Your task to perform on an android device: install app "Etsy: Buy & Sell Unique Items" Image 0: 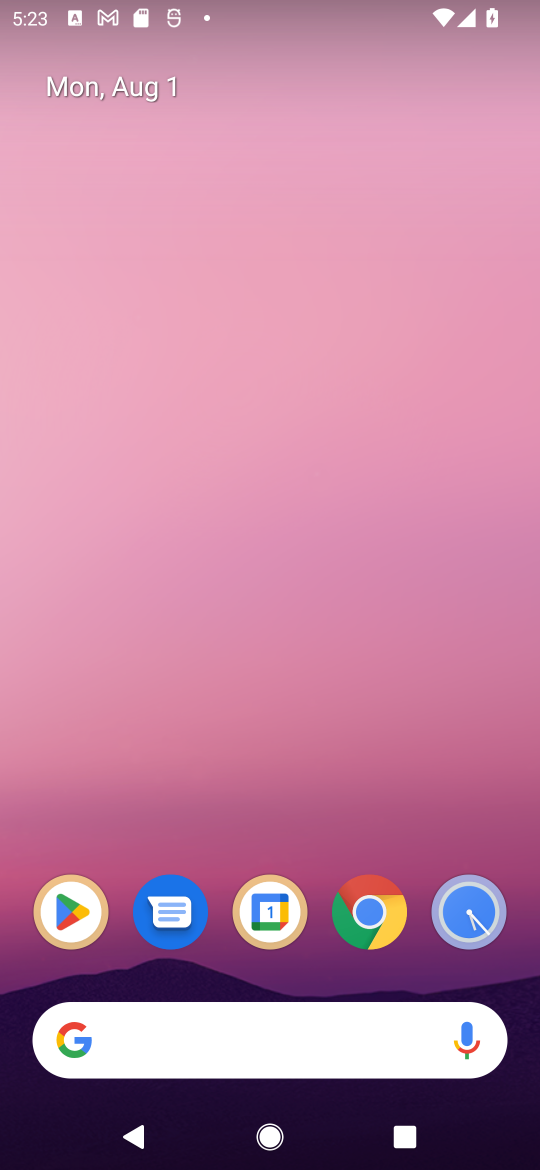
Step 0: click (81, 908)
Your task to perform on an android device: install app "Etsy: Buy & Sell Unique Items" Image 1: 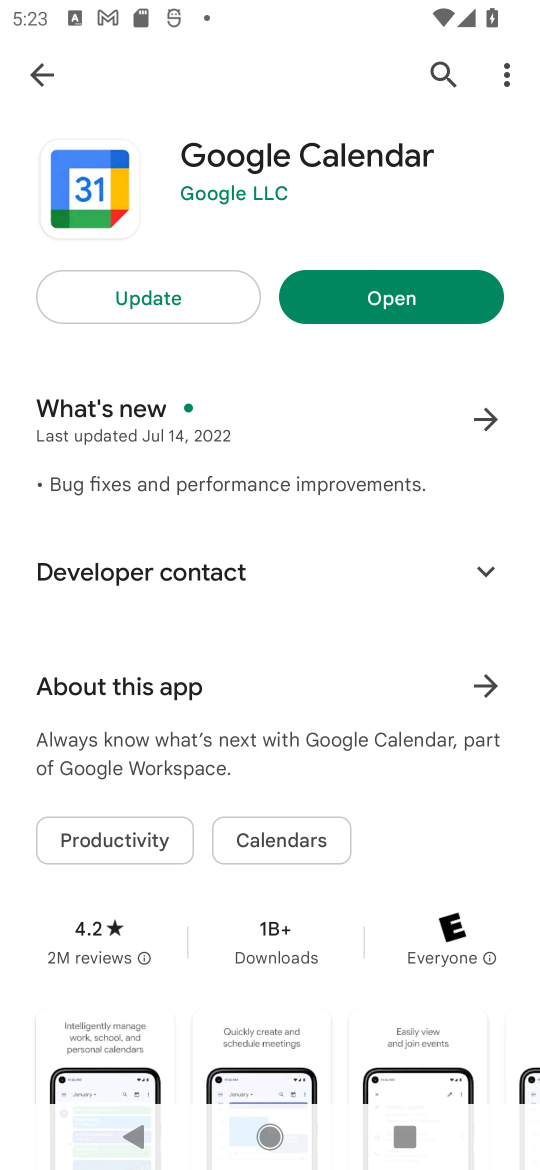
Step 1: click (450, 73)
Your task to perform on an android device: install app "Etsy: Buy & Sell Unique Items" Image 2: 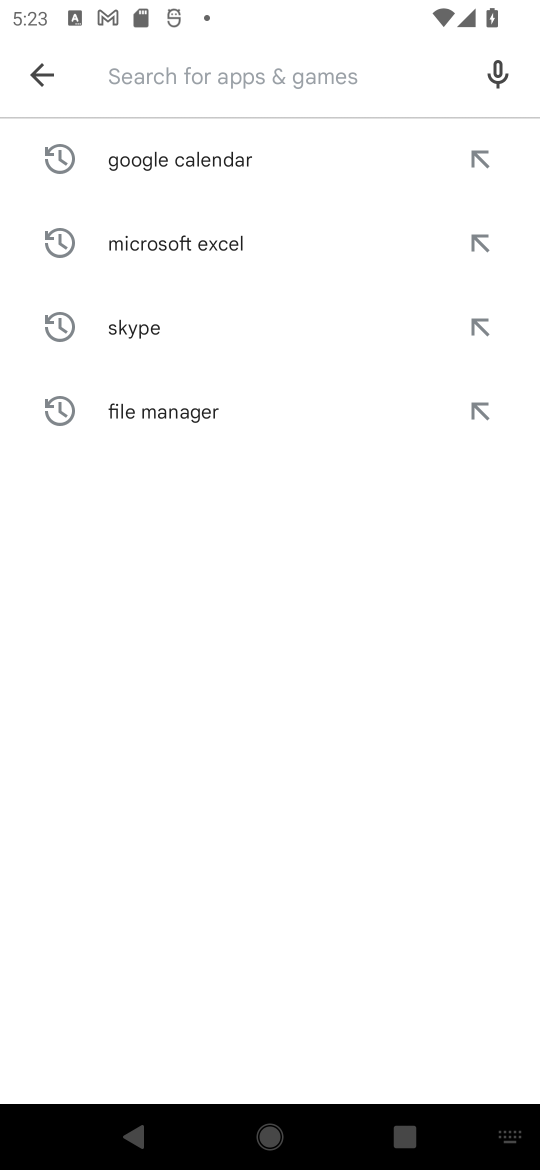
Step 2: click (364, 85)
Your task to perform on an android device: install app "Etsy: Buy & Sell Unique Items" Image 3: 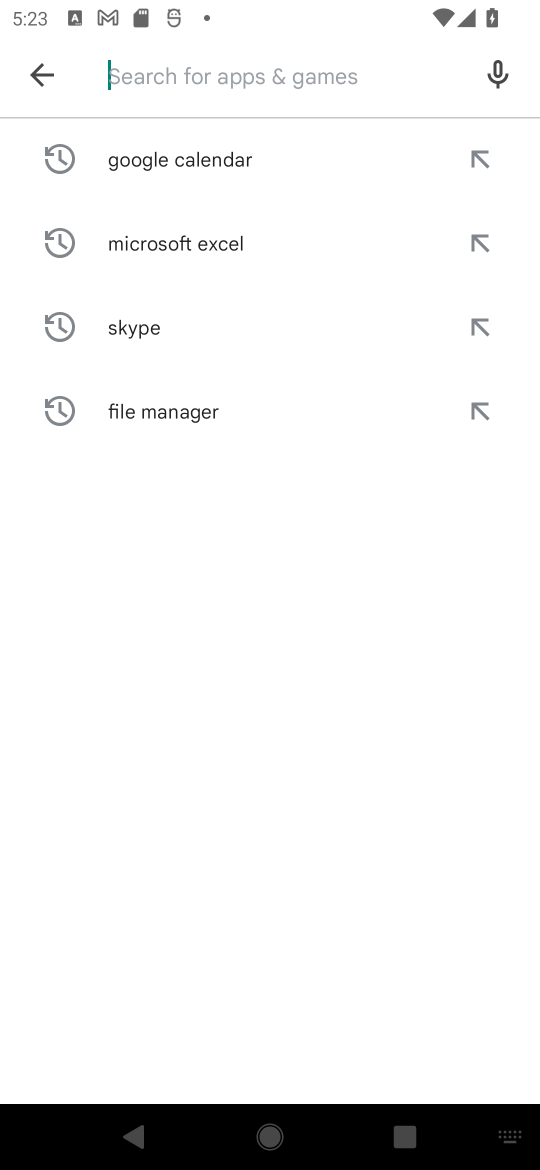
Step 3: type "Etsy: Buy & Sell Unique Items"
Your task to perform on an android device: install app "Etsy: Buy & Sell Unique Items" Image 4: 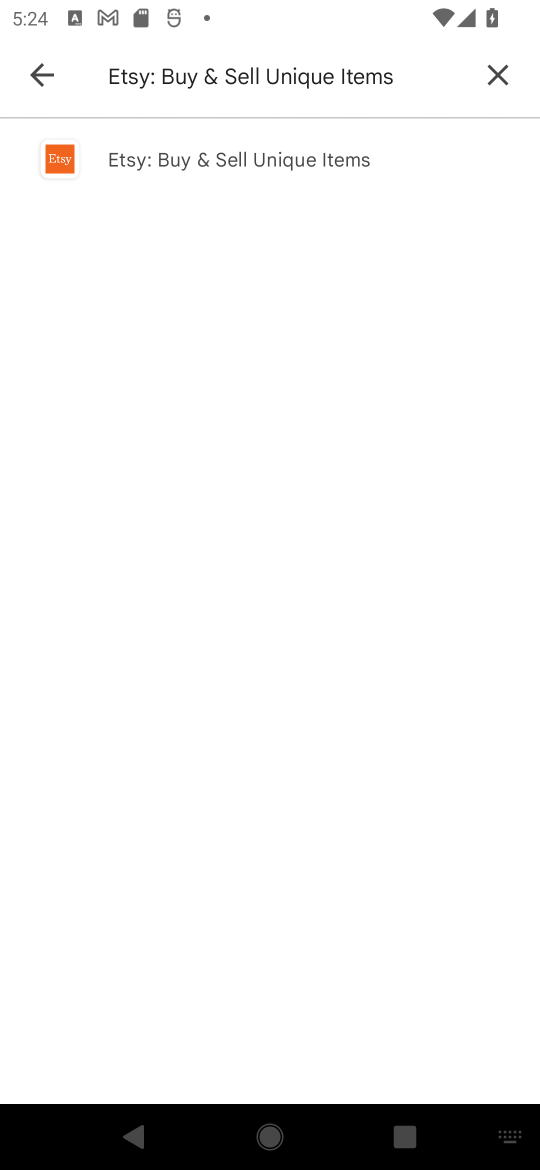
Step 4: click (295, 160)
Your task to perform on an android device: install app "Etsy: Buy & Sell Unique Items" Image 5: 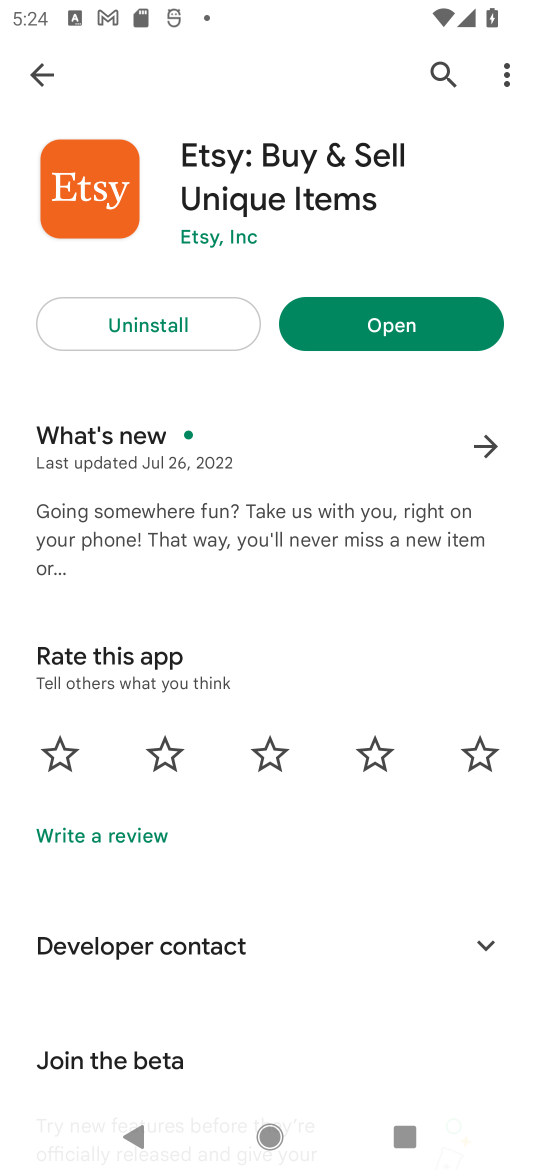
Step 5: task complete